Your task to perform on an android device: open a new tab in the chrome app Image 0: 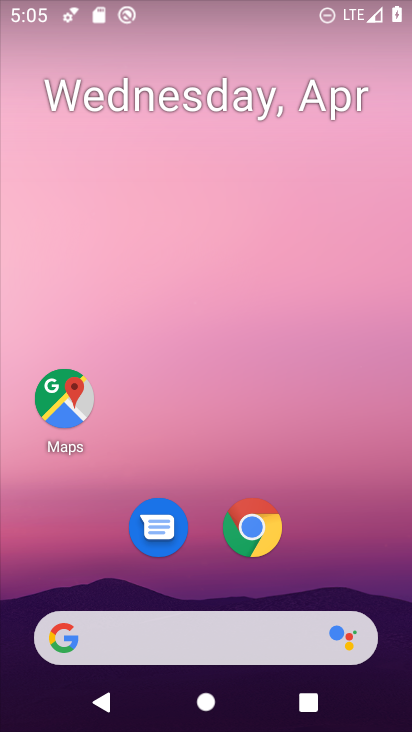
Step 0: click (261, 537)
Your task to perform on an android device: open a new tab in the chrome app Image 1: 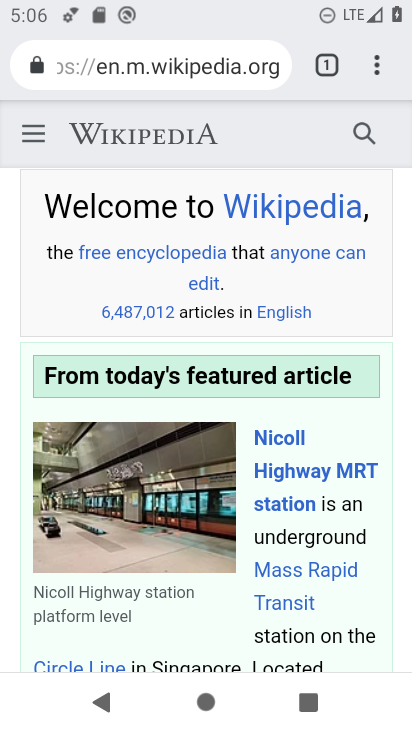
Step 1: click (380, 66)
Your task to perform on an android device: open a new tab in the chrome app Image 2: 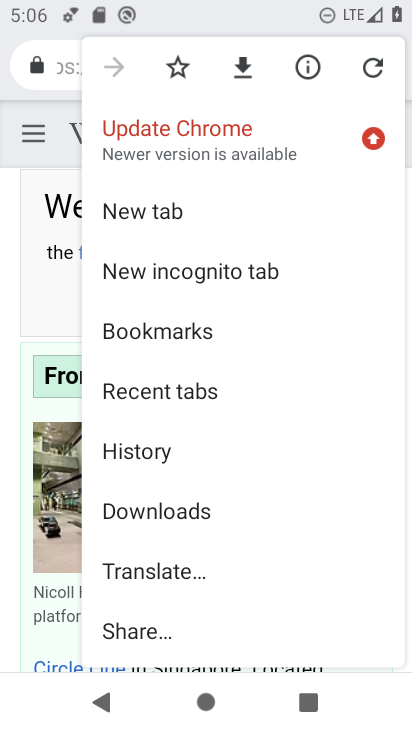
Step 2: click (131, 210)
Your task to perform on an android device: open a new tab in the chrome app Image 3: 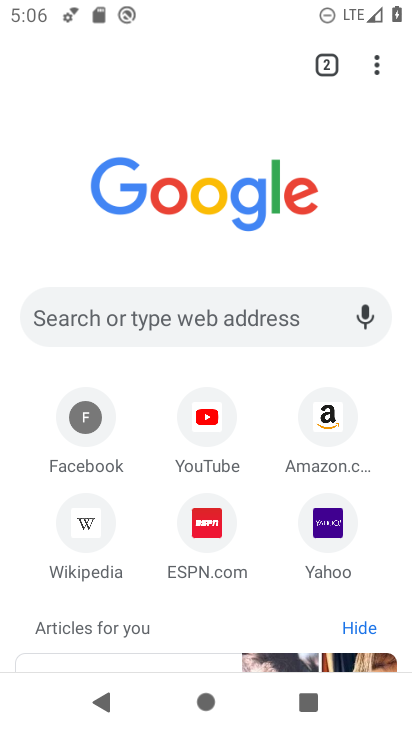
Step 3: task complete